Your task to perform on an android device: visit the assistant section in the google photos Image 0: 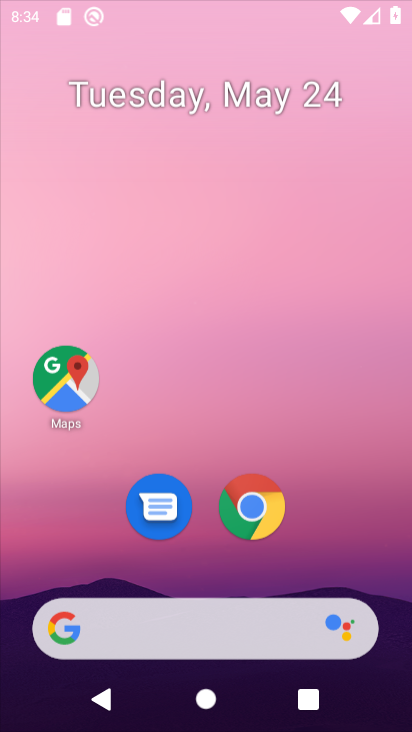
Step 0: click (229, 160)
Your task to perform on an android device: visit the assistant section in the google photos Image 1: 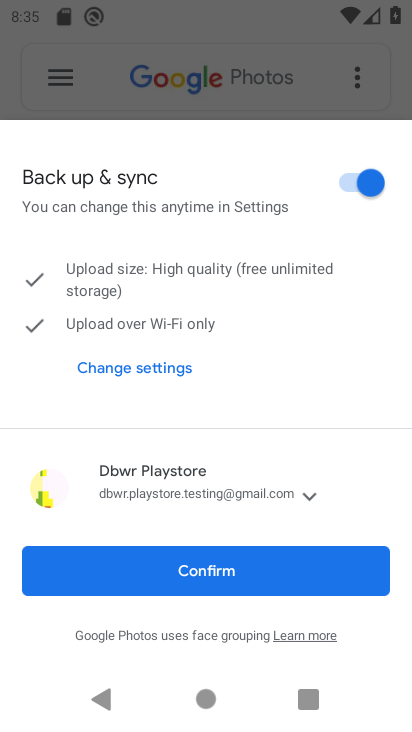
Step 1: click (221, 574)
Your task to perform on an android device: visit the assistant section in the google photos Image 2: 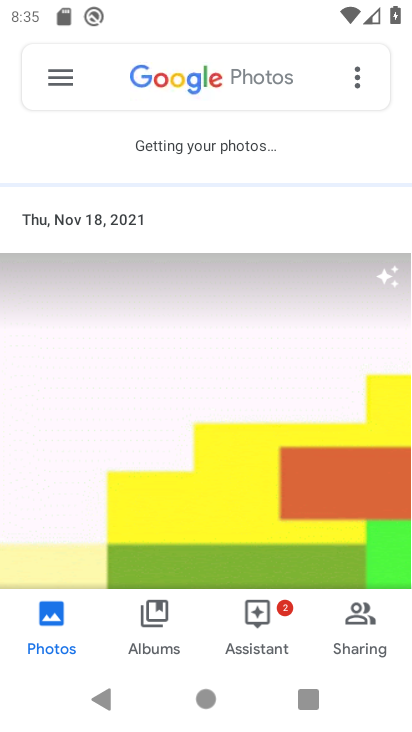
Step 2: click (255, 612)
Your task to perform on an android device: visit the assistant section in the google photos Image 3: 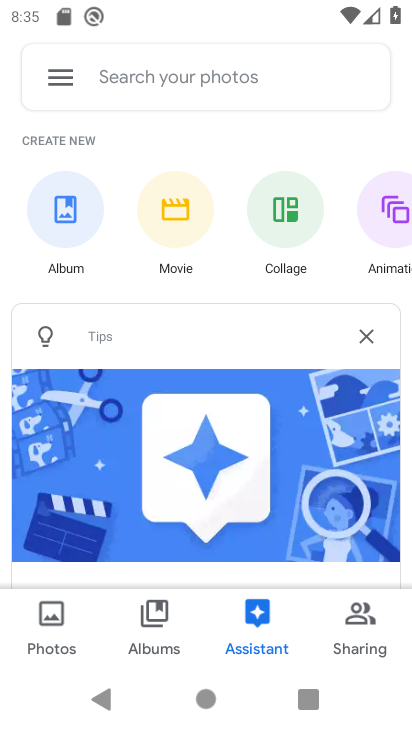
Step 3: drag from (203, 453) to (286, 30)
Your task to perform on an android device: visit the assistant section in the google photos Image 4: 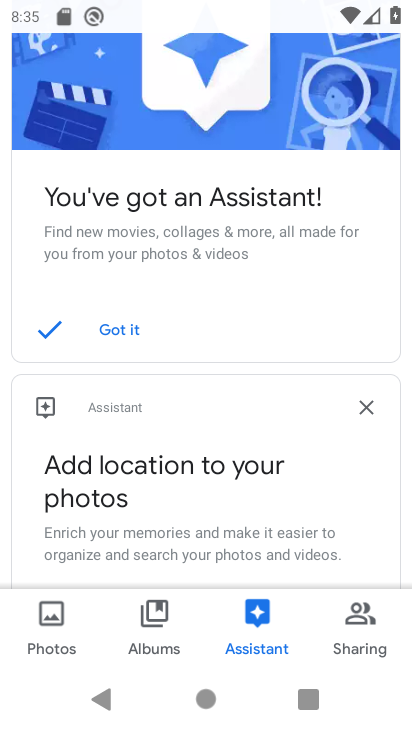
Step 4: drag from (259, 439) to (309, 123)
Your task to perform on an android device: visit the assistant section in the google photos Image 5: 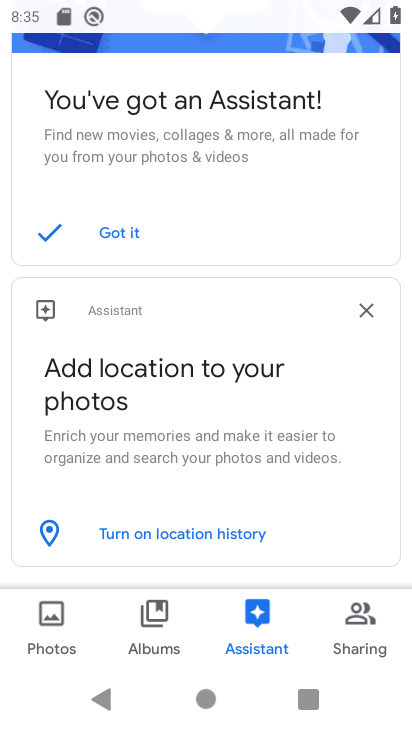
Step 5: drag from (322, 115) to (242, 728)
Your task to perform on an android device: visit the assistant section in the google photos Image 6: 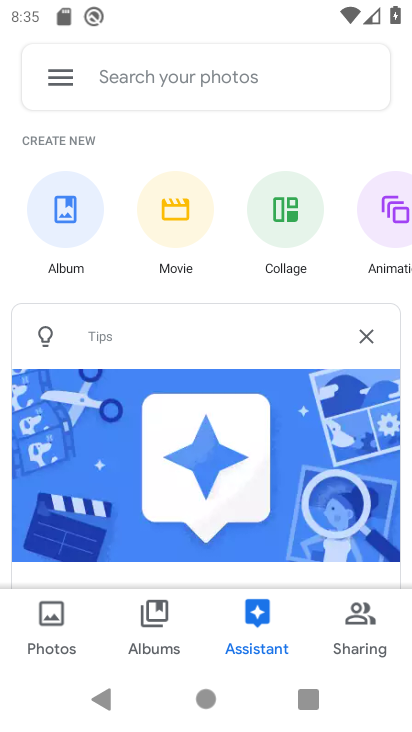
Step 6: drag from (232, 236) to (259, 573)
Your task to perform on an android device: visit the assistant section in the google photos Image 7: 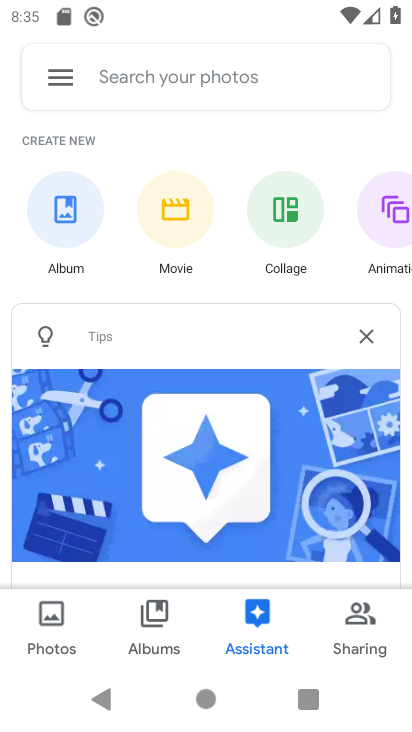
Step 7: drag from (273, 516) to (344, 131)
Your task to perform on an android device: visit the assistant section in the google photos Image 8: 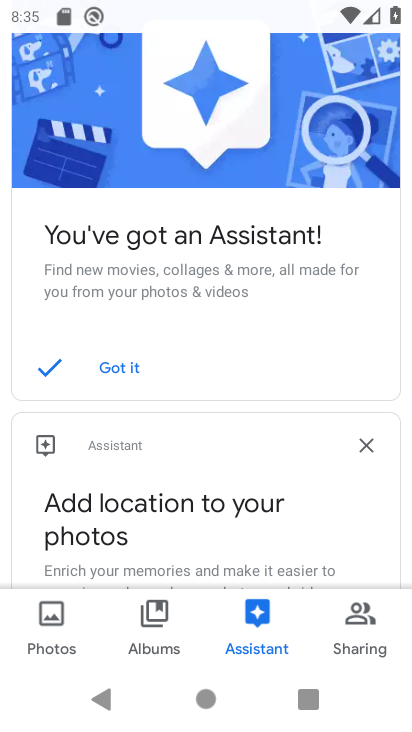
Step 8: drag from (232, 485) to (281, 163)
Your task to perform on an android device: visit the assistant section in the google photos Image 9: 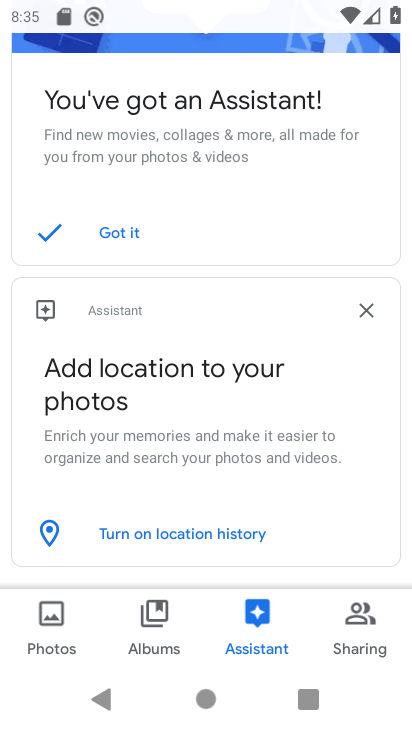
Step 9: drag from (241, 184) to (274, 617)
Your task to perform on an android device: visit the assistant section in the google photos Image 10: 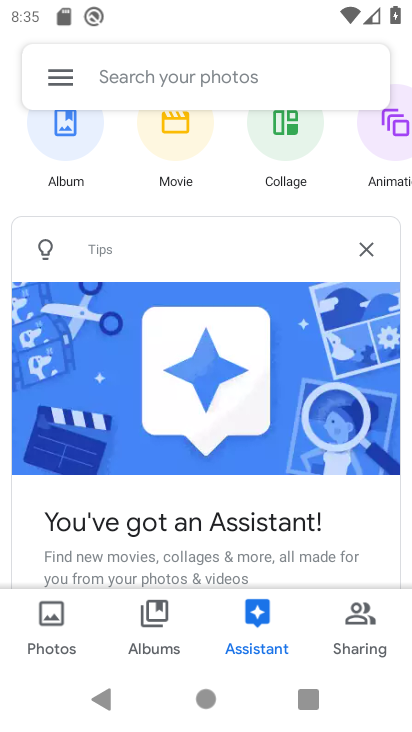
Step 10: drag from (219, 180) to (248, 500)
Your task to perform on an android device: visit the assistant section in the google photos Image 11: 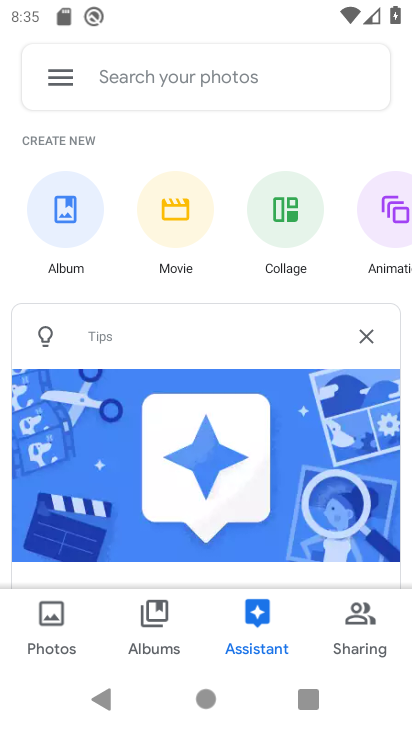
Step 11: drag from (264, 496) to (317, 153)
Your task to perform on an android device: visit the assistant section in the google photos Image 12: 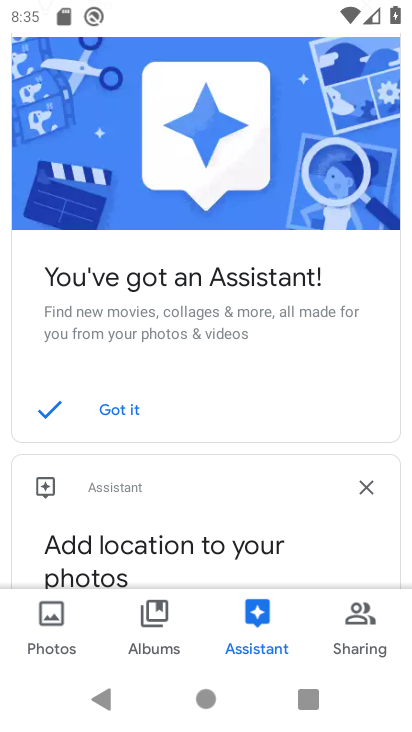
Step 12: drag from (211, 529) to (265, 174)
Your task to perform on an android device: visit the assistant section in the google photos Image 13: 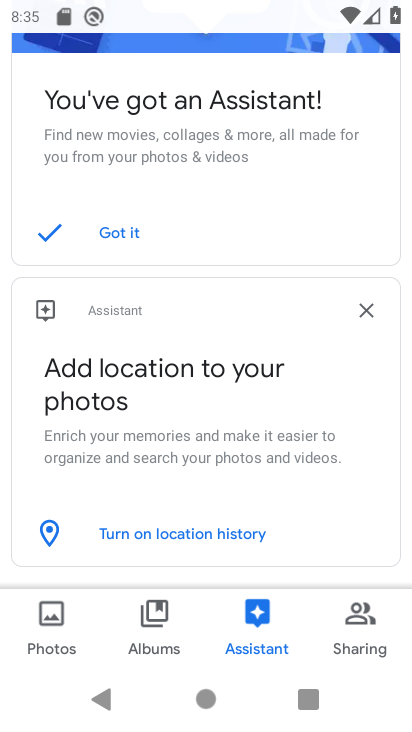
Step 13: drag from (201, 482) to (268, 184)
Your task to perform on an android device: visit the assistant section in the google photos Image 14: 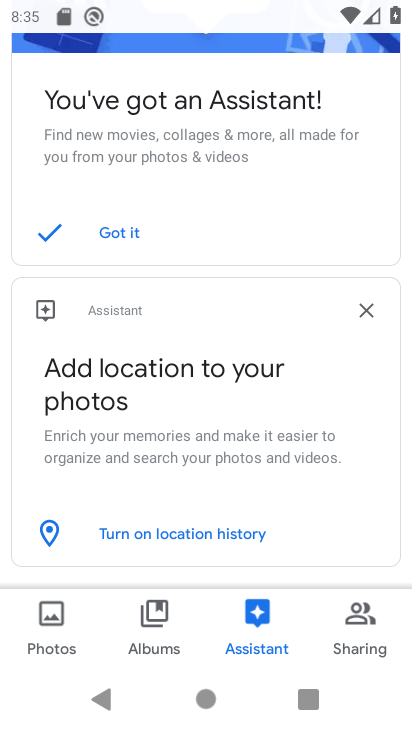
Step 14: drag from (222, 406) to (279, 162)
Your task to perform on an android device: visit the assistant section in the google photos Image 15: 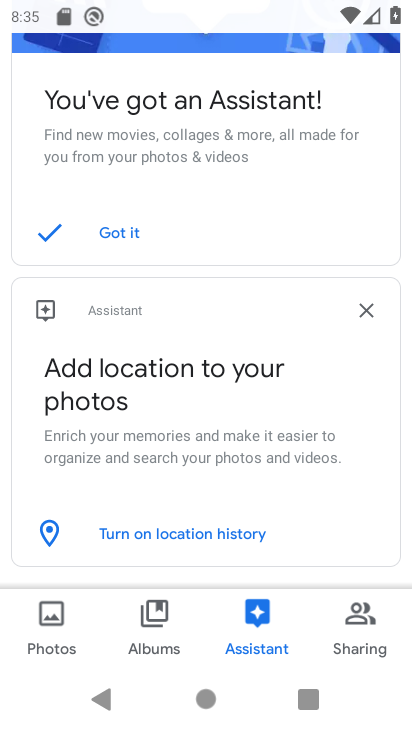
Step 15: drag from (251, 149) to (268, 632)
Your task to perform on an android device: visit the assistant section in the google photos Image 16: 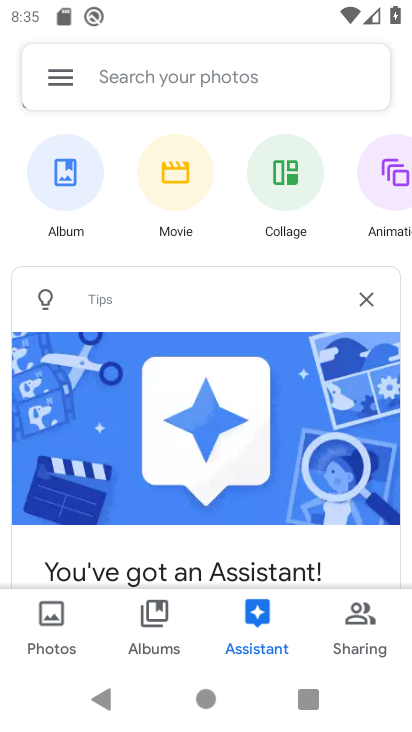
Step 16: drag from (228, 509) to (286, 224)
Your task to perform on an android device: visit the assistant section in the google photos Image 17: 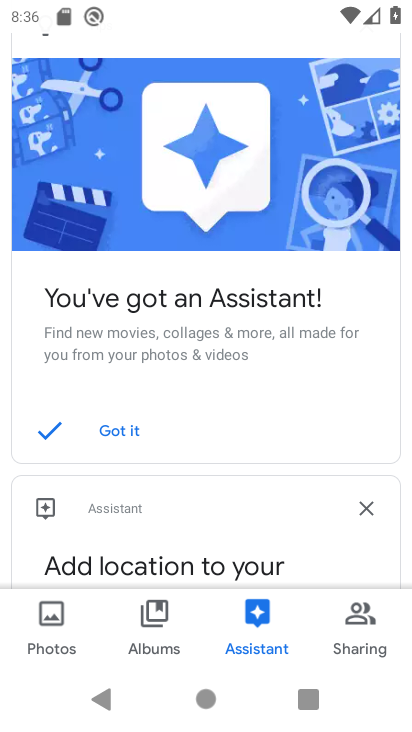
Step 17: drag from (195, 318) to (210, 511)
Your task to perform on an android device: visit the assistant section in the google photos Image 18: 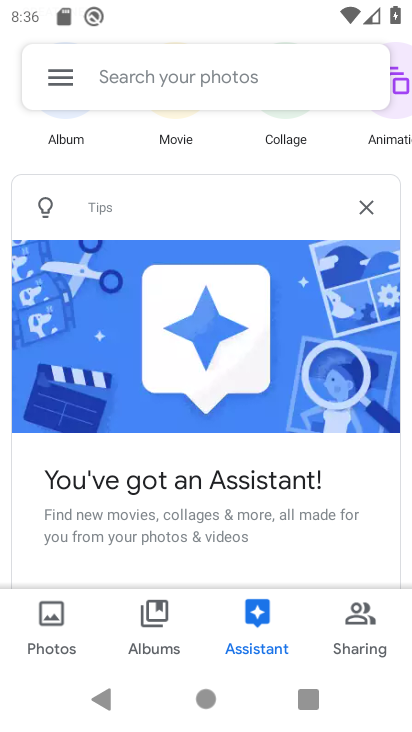
Step 18: drag from (194, 433) to (245, 266)
Your task to perform on an android device: visit the assistant section in the google photos Image 19: 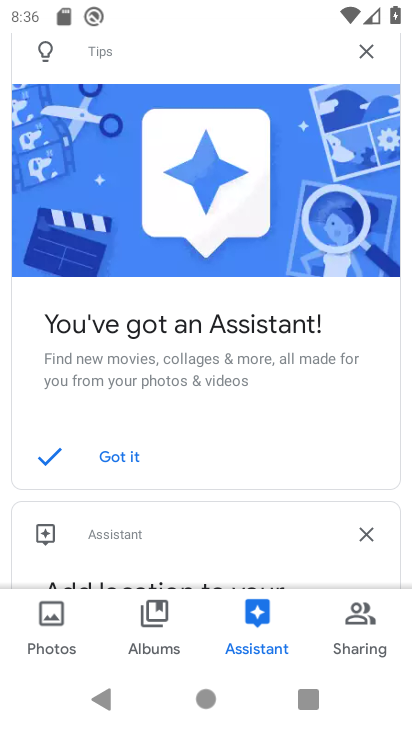
Step 19: drag from (169, 471) to (271, 46)
Your task to perform on an android device: visit the assistant section in the google photos Image 20: 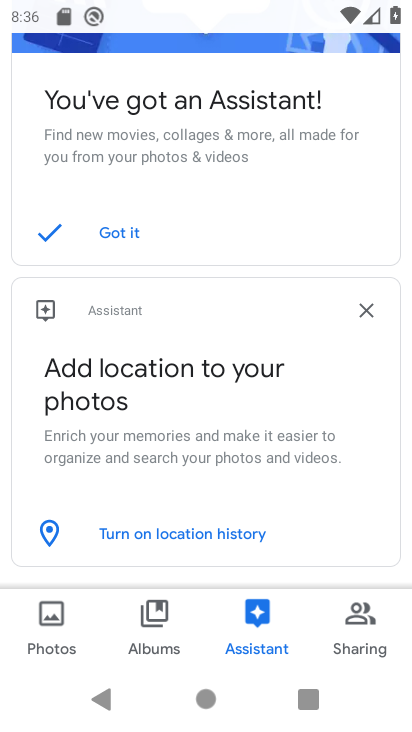
Step 20: click (251, 633)
Your task to perform on an android device: visit the assistant section in the google photos Image 21: 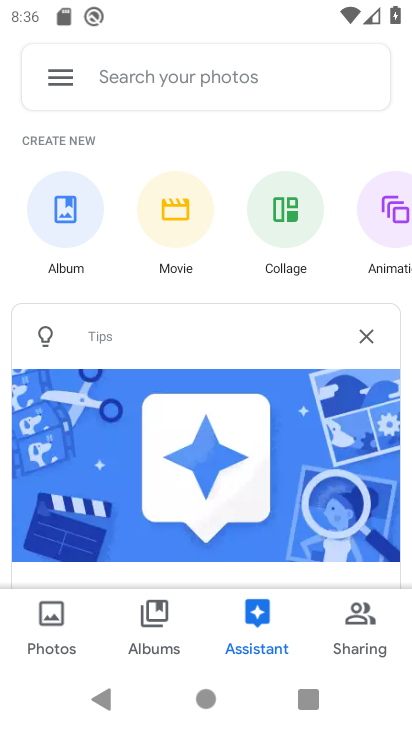
Step 21: task complete